Your task to perform on an android device: Open calendar and show me the second week of next month Image 0: 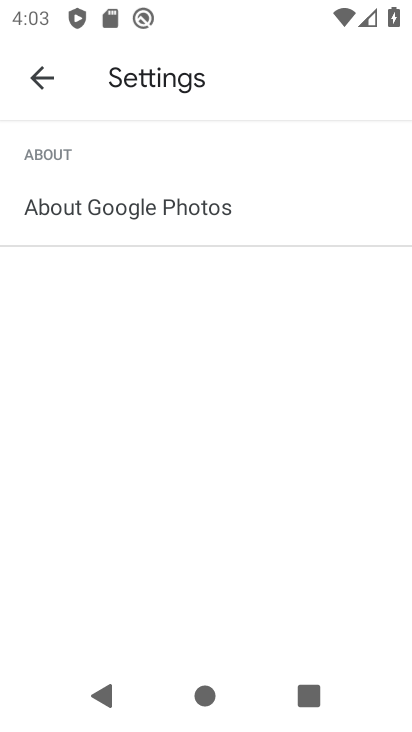
Step 0: press home button
Your task to perform on an android device: Open calendar and show me the second week of next month Image 1: 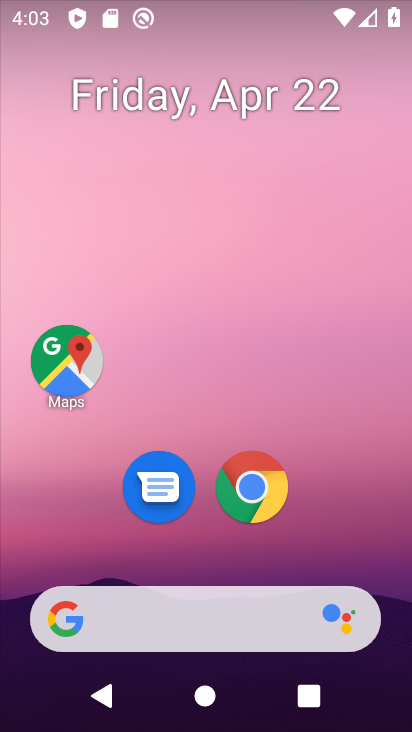
Step 1: drag from (311, 444) to (360, 29)
Your task to perform on an android device: Open calendar and show me the second week of next month Image 2: 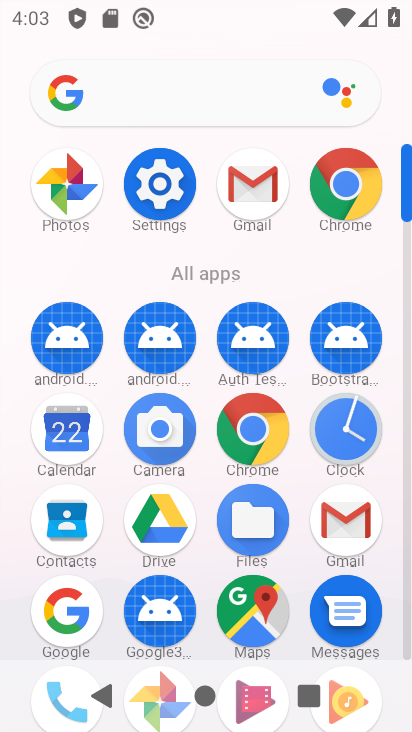
Step 2: click (81, 428)
Your task to perform on an android device: Open calendar and show me the second week of next month Image 3: 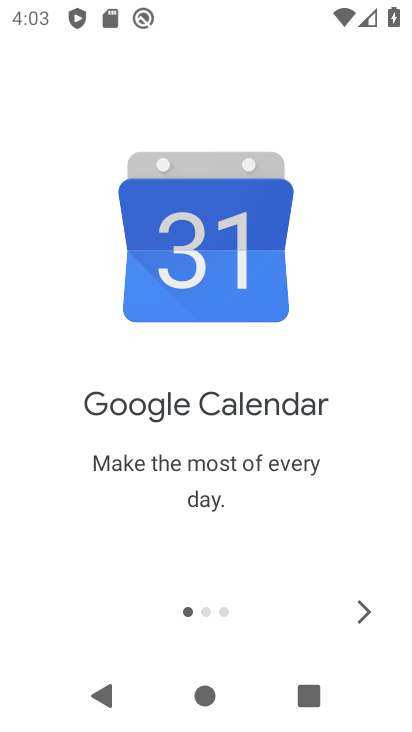
Step 3: click (357, 604)
Your task to perform on an android device: Open calendar and show me the second week of next month Image 4: 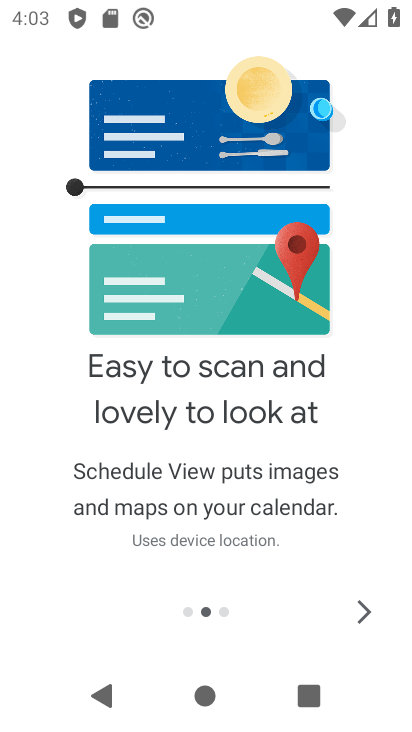
Step 4: click (367, 595)
Your task to perform on an android device: Open calendar and show me the second week of next month Image 5: 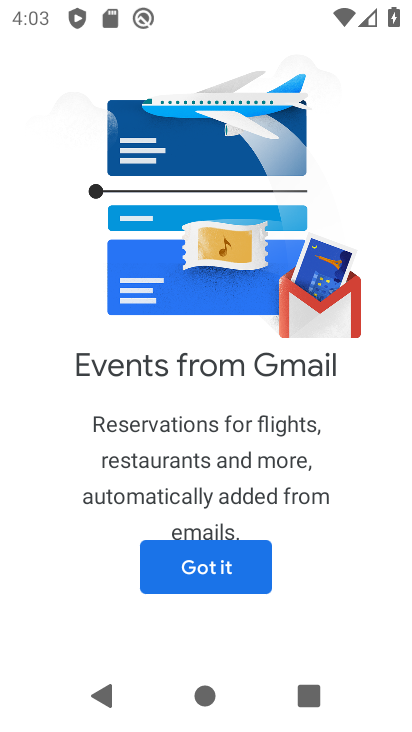
Step 5: click (197, 565)
Your task to perform on an android device: Open calendar and show me the second week of next month Image 6: 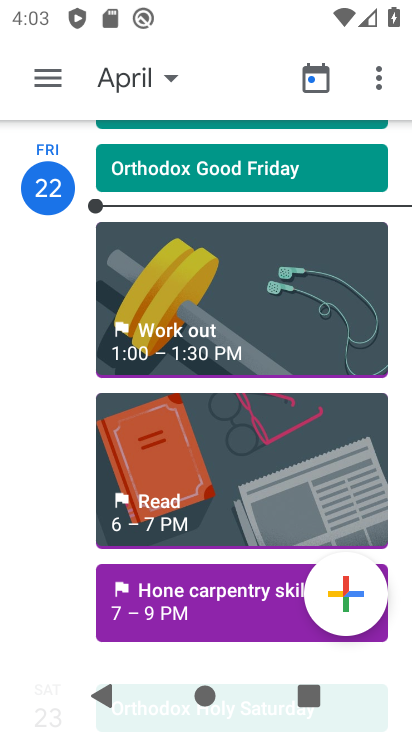
Step 6: click (171, 79)
Your task to perform on an android device: Open calendar and show me the second week of next month Image 7: 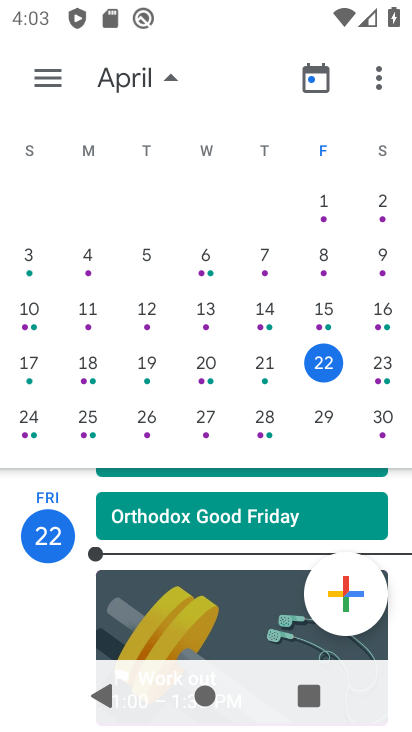
Step 7: drag from (219, 278) to (24, 302)
Your task to perform on an android device: Open calendar and show me the second week of next month Image 8: 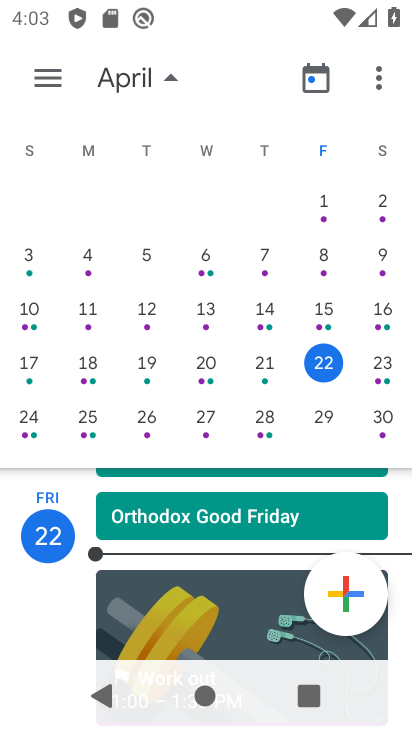
Step 8: drag from (292, 344) to (32, 379)
Your task to perform on an android device: Open calendar and show me the second week of next month Image 9: 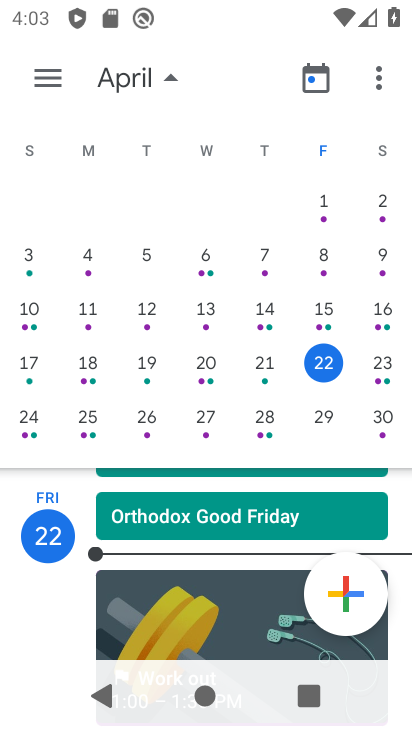
Step 9: drag from (398, 367) to (86, 343)
Your task to perform on an android device: Open calendar and show me the second week of next month Image 10: 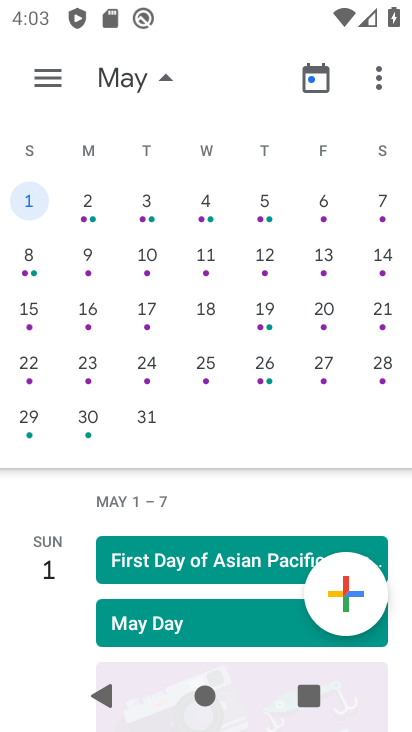
Step 10: click (42, 266)
Your task to perform on an android device: Open calendar and show me the second week of next month Image 11: 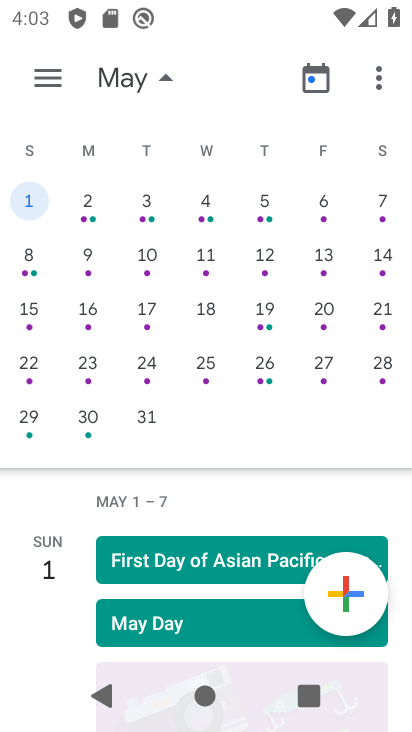
Step 11: click (35, 264)
Your task to perform on an android device: Open calendar and show me the second week of next month Image 12: 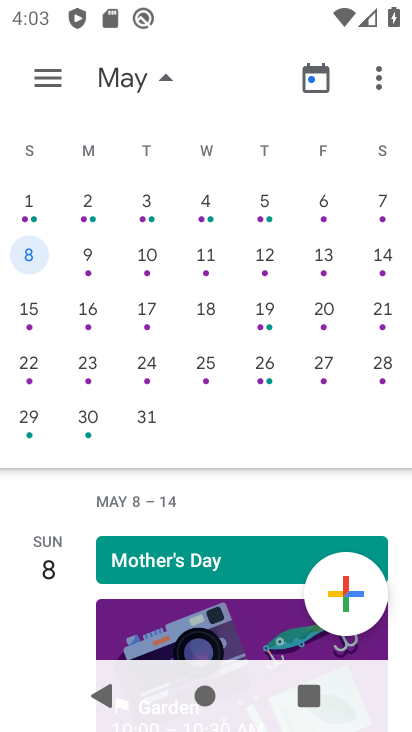
Step 12: task complete